Your task to perform on an android device: Turn on the flashlight Image 0: 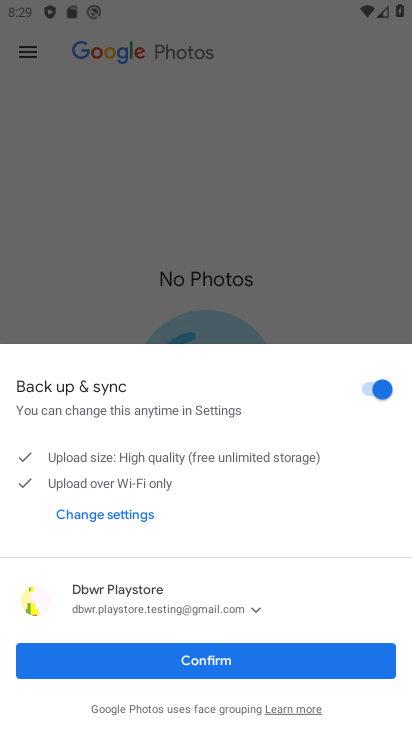
Step 0: press back button
Your task to perform on an android device: Turn on the flashlight Image 1: 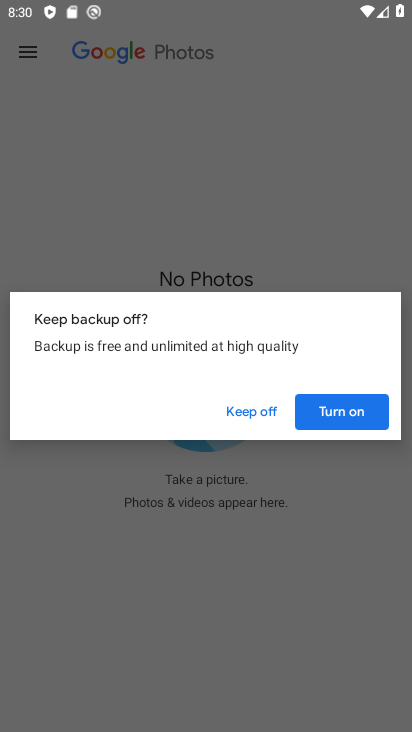
Step 1: press back button
Your task to perform on an android device: Turn on the flashlight Image 2: 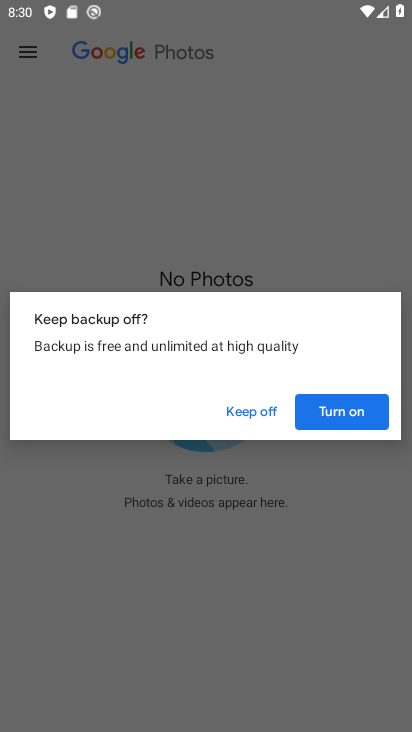
Step 2: press home button
Your task to perform on an android device: Turn on the flashlight Image 3: 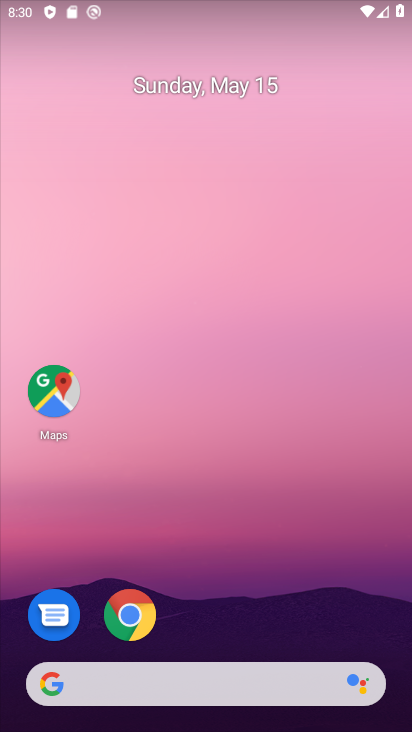
Step 3: drag from (271, 561) to (266, 12)
Your task to perform on an android device: Turn on the flashlight Image 4: 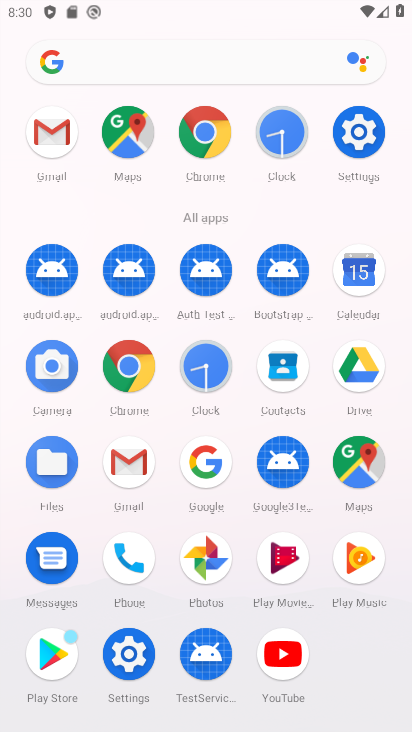
Step 4: click (359, 131)
Your task to perform on an android device: Turn on the flashlight Image 5: 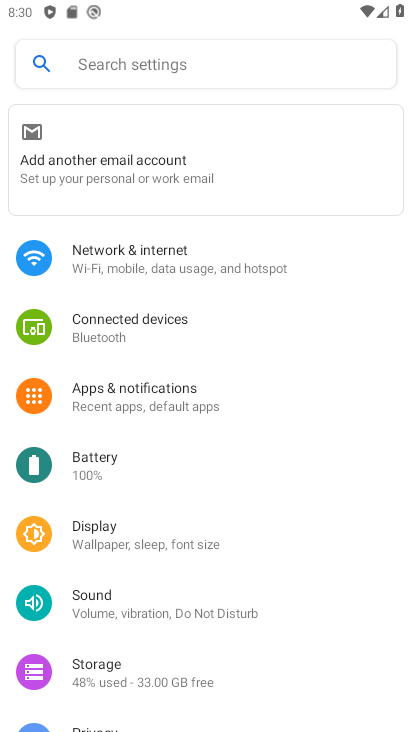
Step 5: drag from (283, 517) to (284, 152)
Your task to perform on an android device: Turn on the flashlight Image 6: 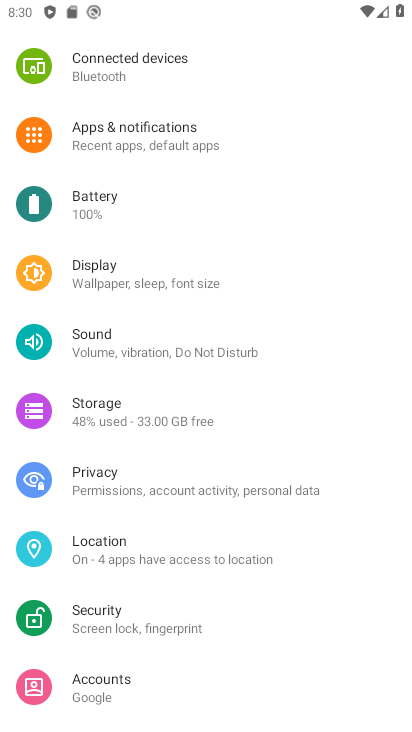
Step 6: drag from (256, 144) to (277, 565)
Your task to perform on an android device: Turn on the flashlight Image 7: 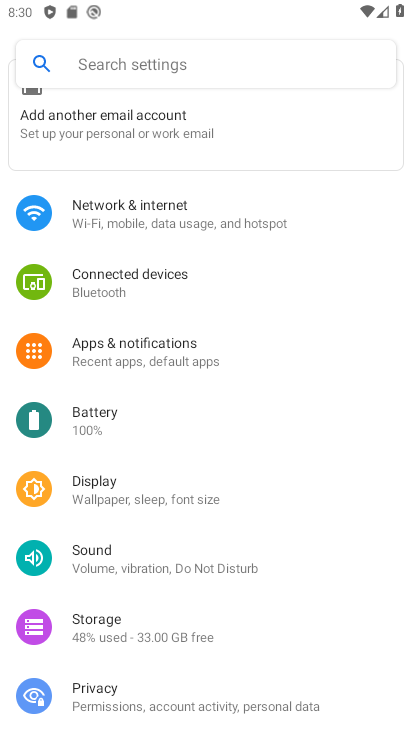
Step 7: drag from (317, 183) to (319, 523)
Your task to perform on an android device: Turn on the flashlight Image 8: 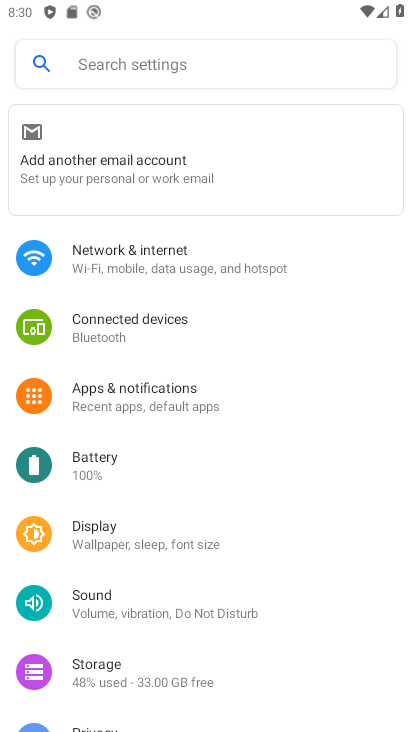
Step 8: click (251, 257)
Your task to perform on an android device: Turn on the flashlight Image 9: 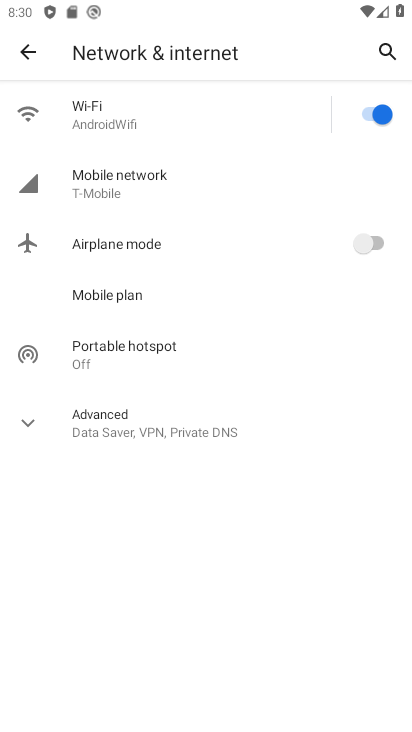
Step 9: click (23, 419)
Your task to perform on an android device: Turn on the flashlight Image 10: 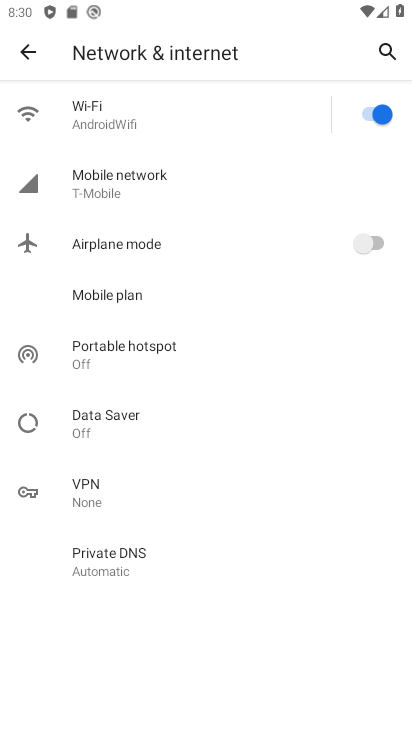
Step 10: task complete